Your task to perform on an android device: open app "Truecaller" (install if not already installed) and enter user name: "coauthor@gmail.com" and password: "quadrangle" Image 0: 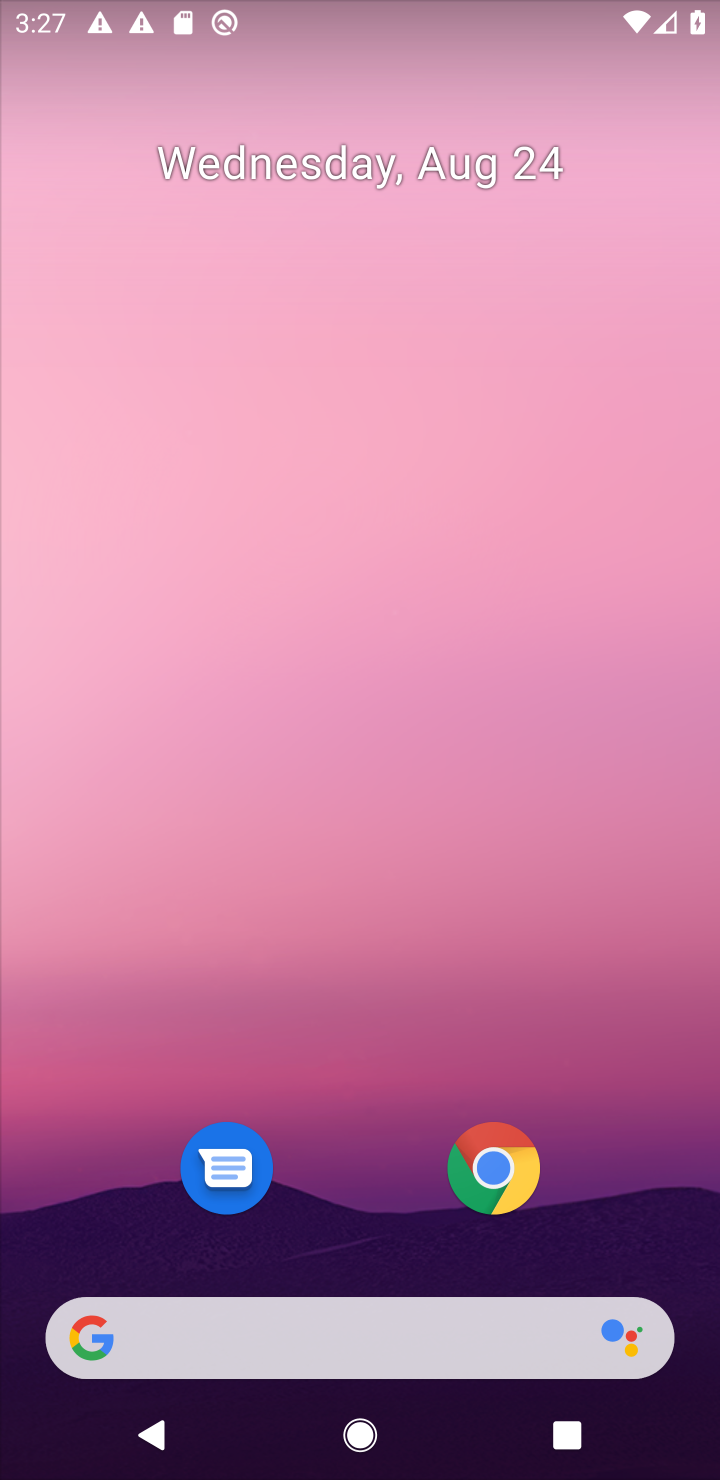
Step 0: drag from (676, 1197) to (565, 159)
Your task to perform on an android device: open app "Truecaller" (install if not already installed) and enter user name: "coauthor@gmail.com" and password: "quadrangle" Image 1: 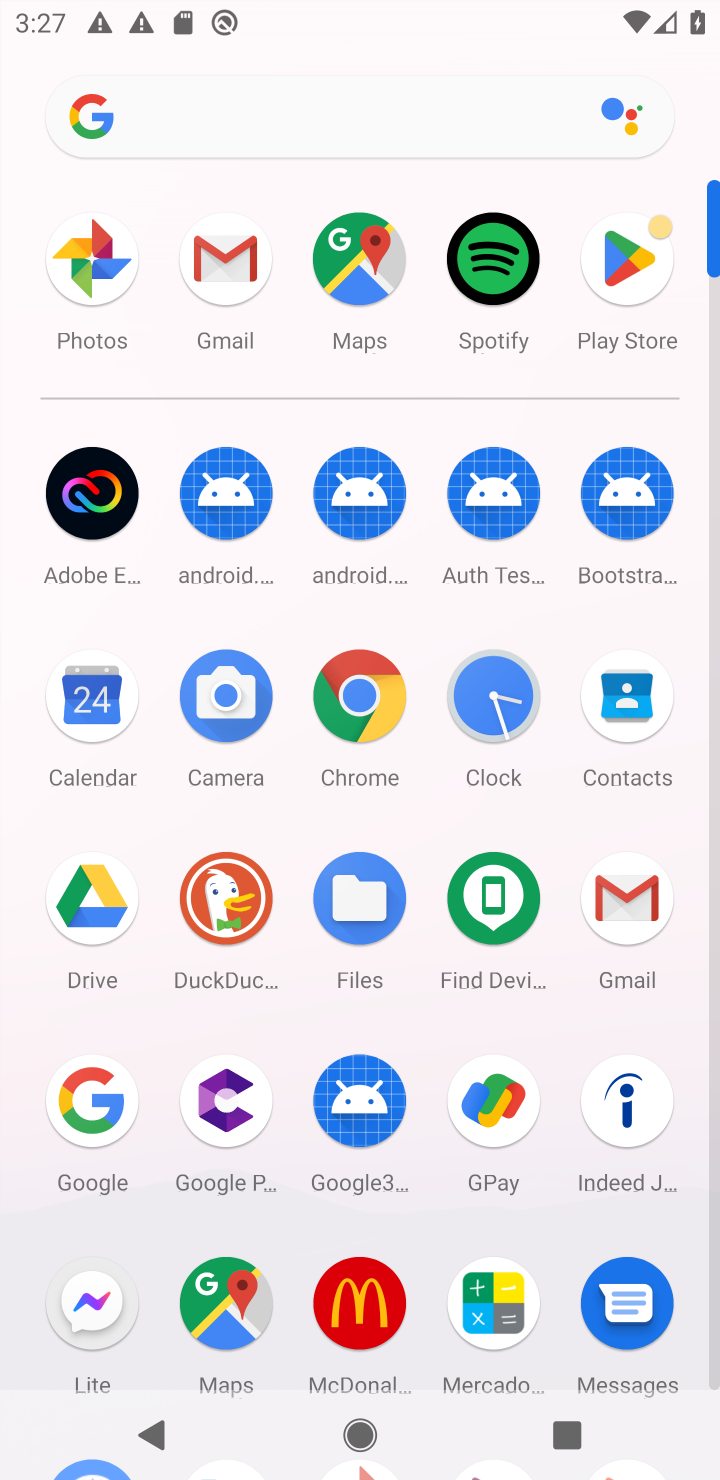
Step 1: click (718, 1337)
Your task to perform on an android device: open app "Truecaller" (install if not already installed) and enter user name: "coauthor@gmail.com" and password: "quadrangle" Image 2: 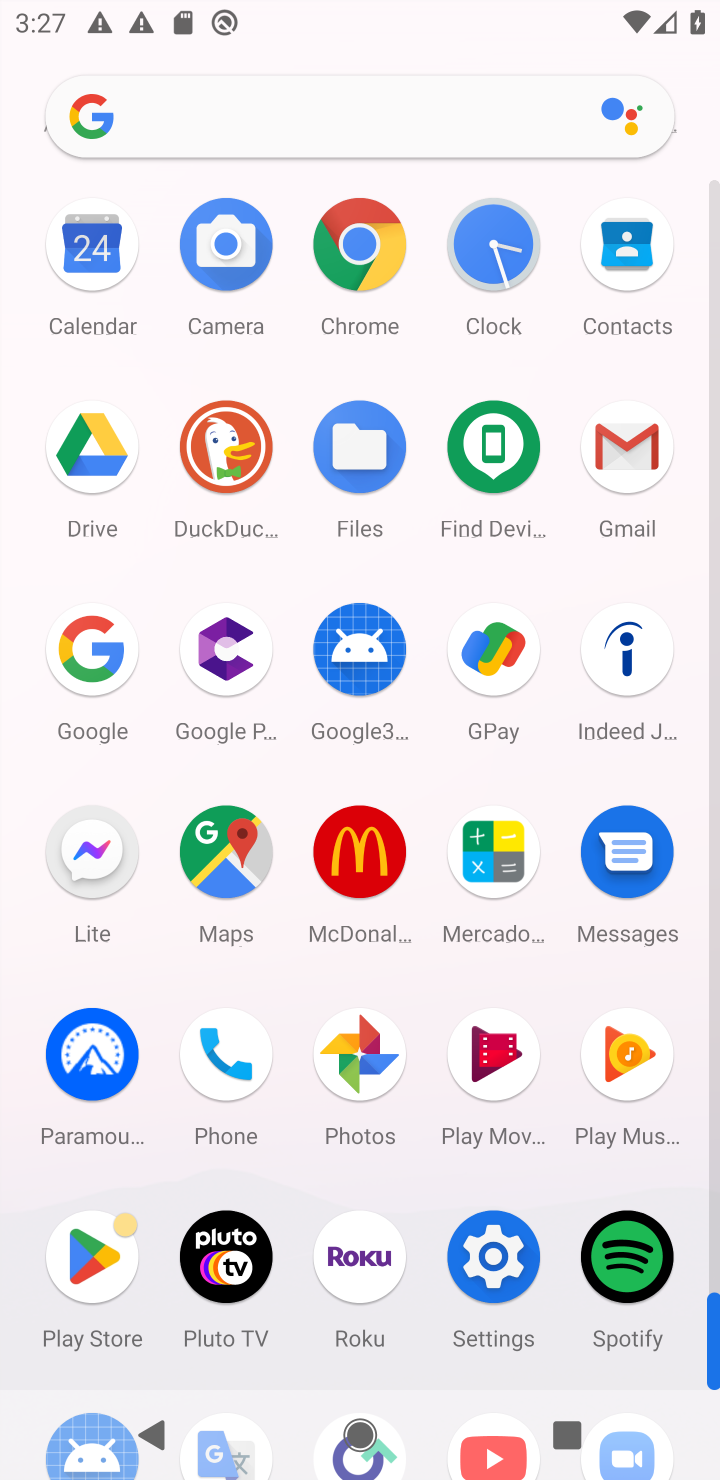
Step 2: click (98, 1255)
Your task to perform on an android device: open app "Truecaller" (install if not already installed) and enter user name: "coauthor@gmail.com" and password: "quadrangle" Image 3: 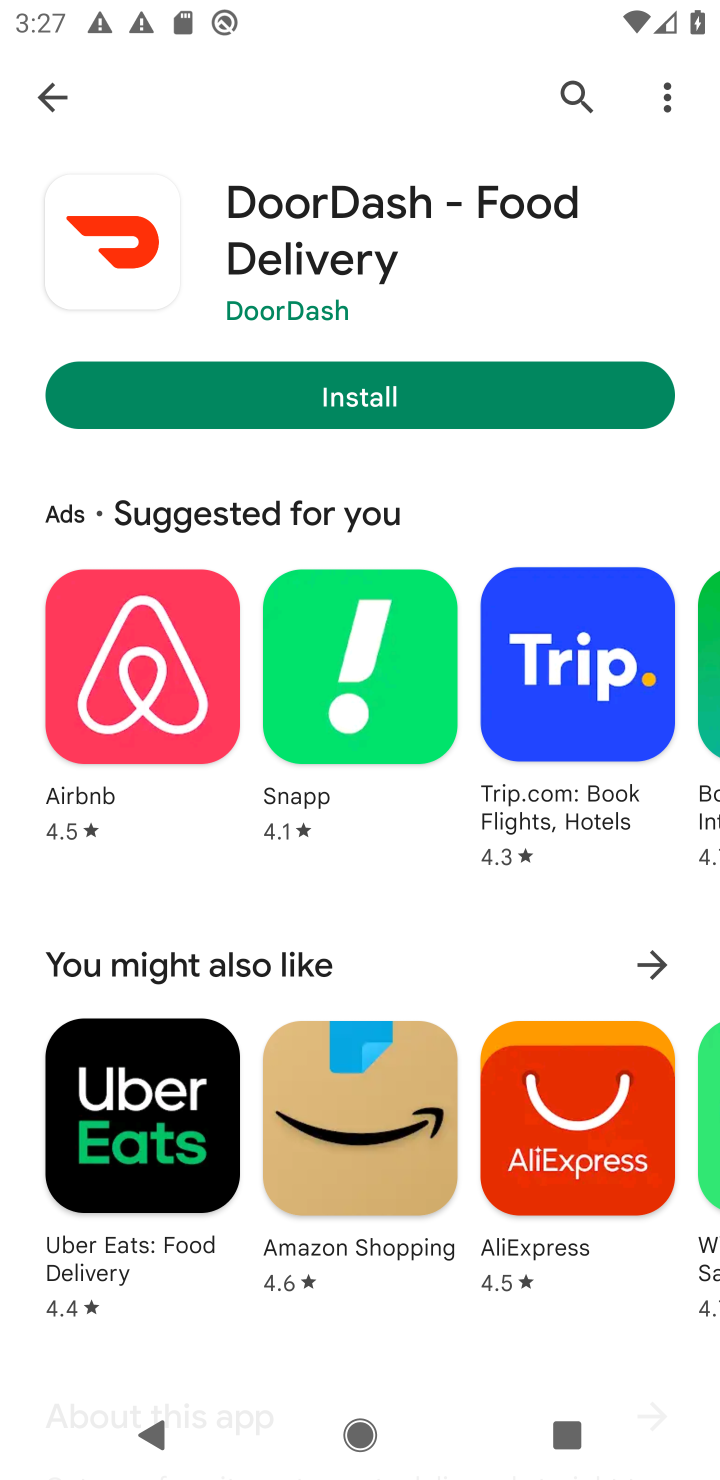
Step 3: click (569, 83)
Your task to perform on an android device: open app "Truecaller" (install if not already installed) and enter user name: "coauthor@gmail.com" and password: "quadrangle" Image 4: 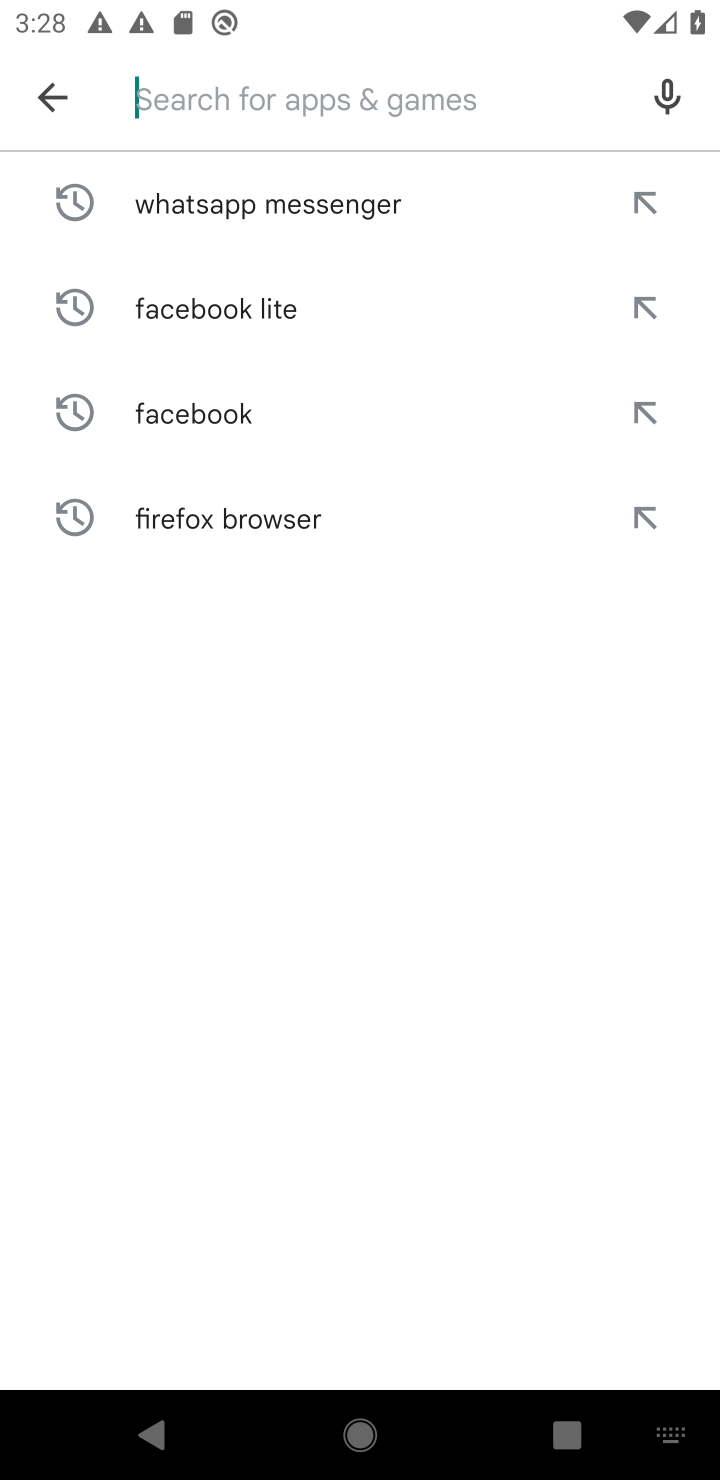
Step 4: type "Truecalle"
Your task to perform on an android device: open app "Truecaller" (install if not already installed) and enter user name: "coauthor@gmail.com" and password: "quadrangle" Image 5: 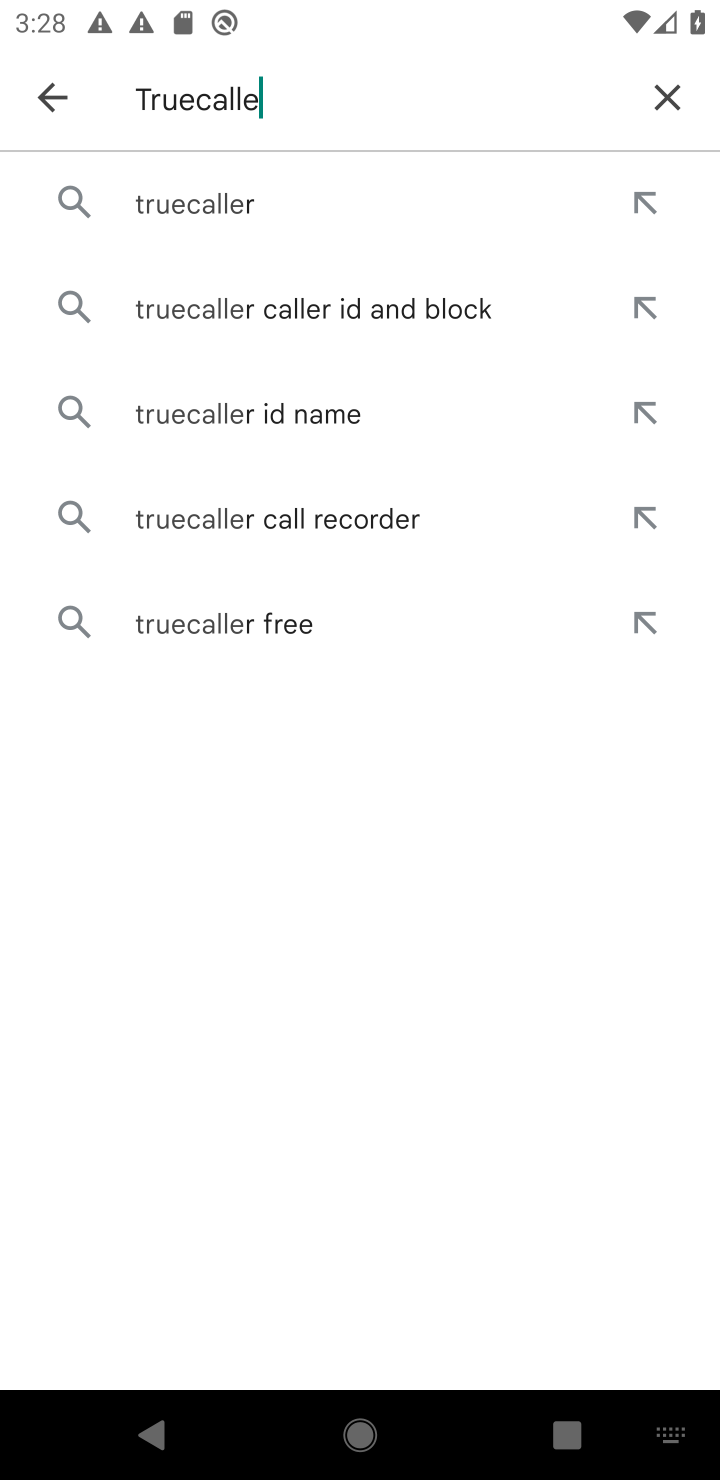
Step 5: click (217, 192)
Your task to perform on an android device: open app "Truecaller" (install if not already installed) and enter user name: "coauthor@gmail.com" and password: "quadrangle" Image 6: 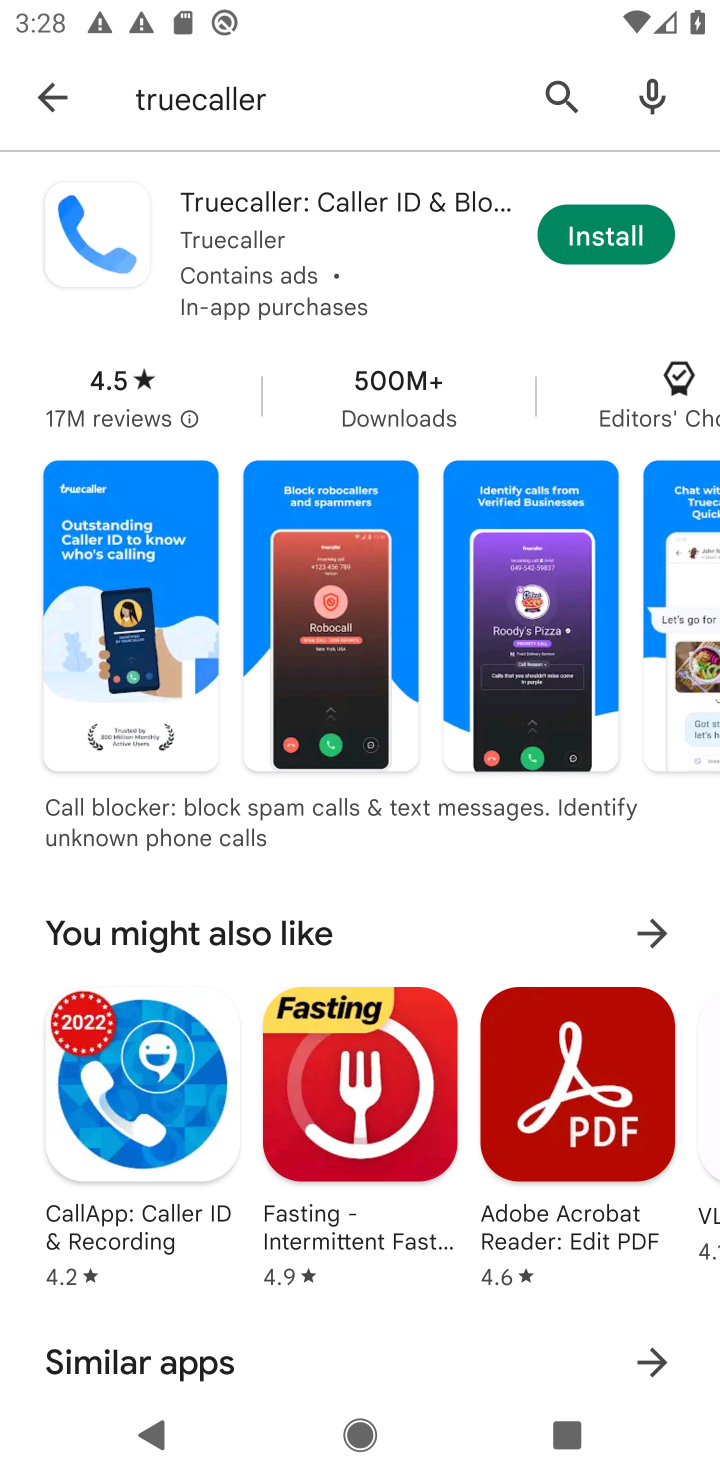
Step 6: click (244, 202)
Your task to perform on an android device: open app "Truecaller" (install if not already installed) and enter user name: "coauthor@gmail.com" and password: "quadrangle" Image 7: 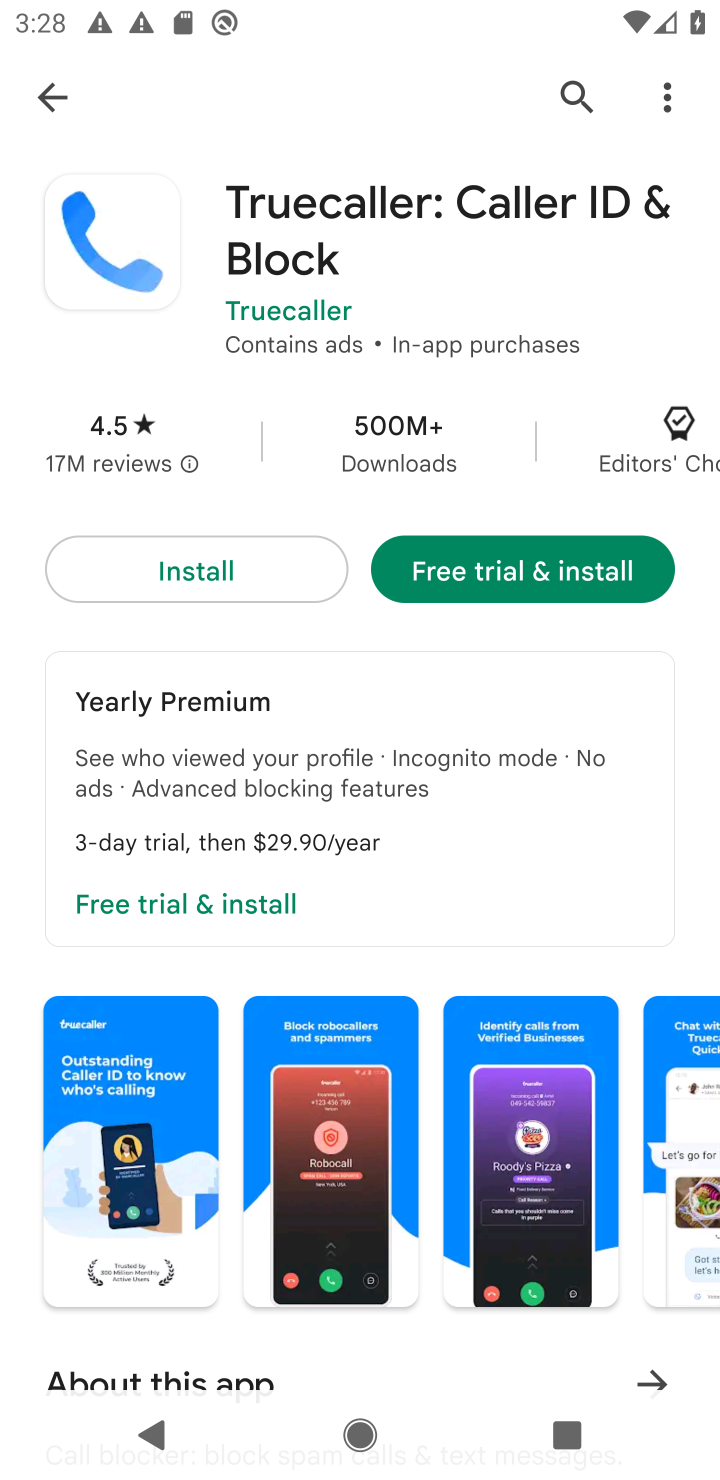
Step 7: click (195, 566)
Your task to perform on an android device: open app "Truecaller" (install if not already installed) and enter user name: "coauthor@gmail.com" and password: "quadrangle" Image 8: 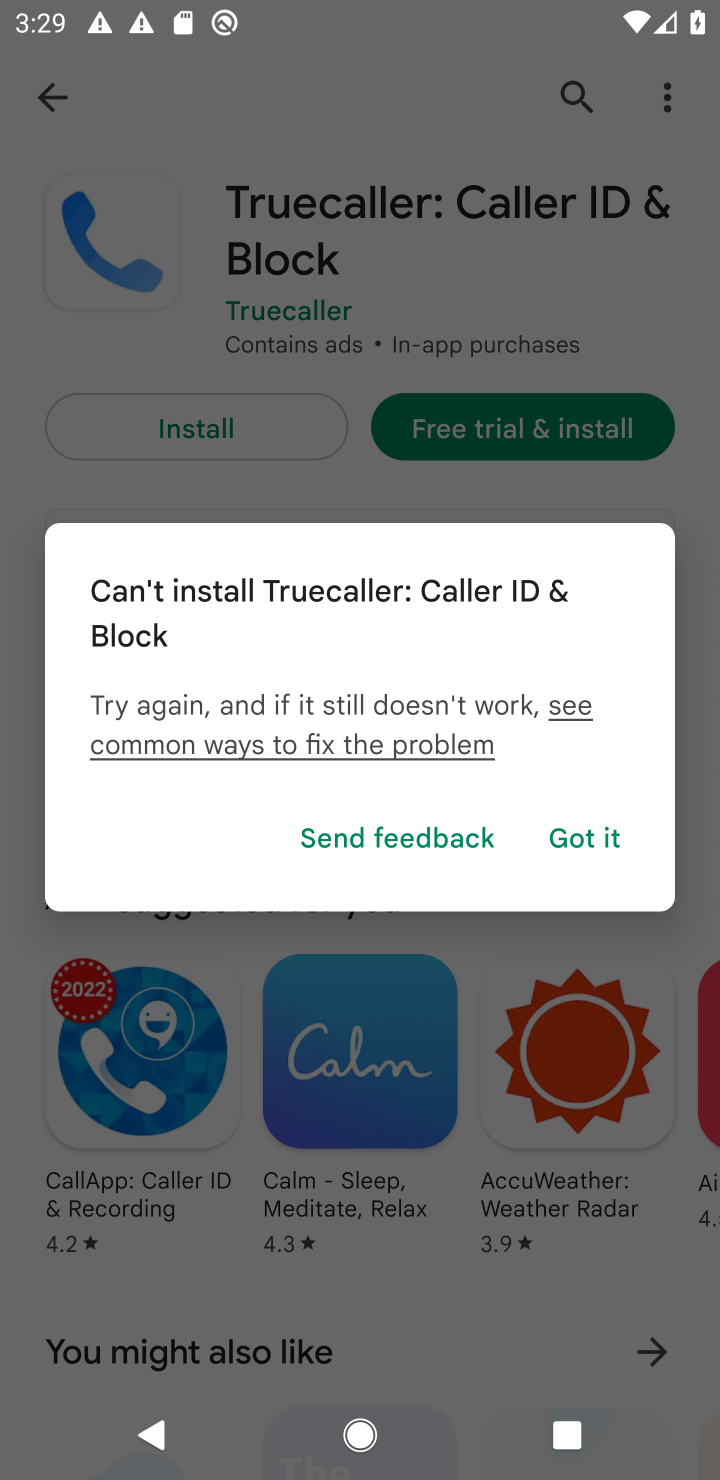
Step 8: click (577, 839)
Your task to perform on an android device: open app "Truecaller" (install if not already installed) and enter user name: "coauthor@gmail.com" and password: "quadrangle" Image 9: 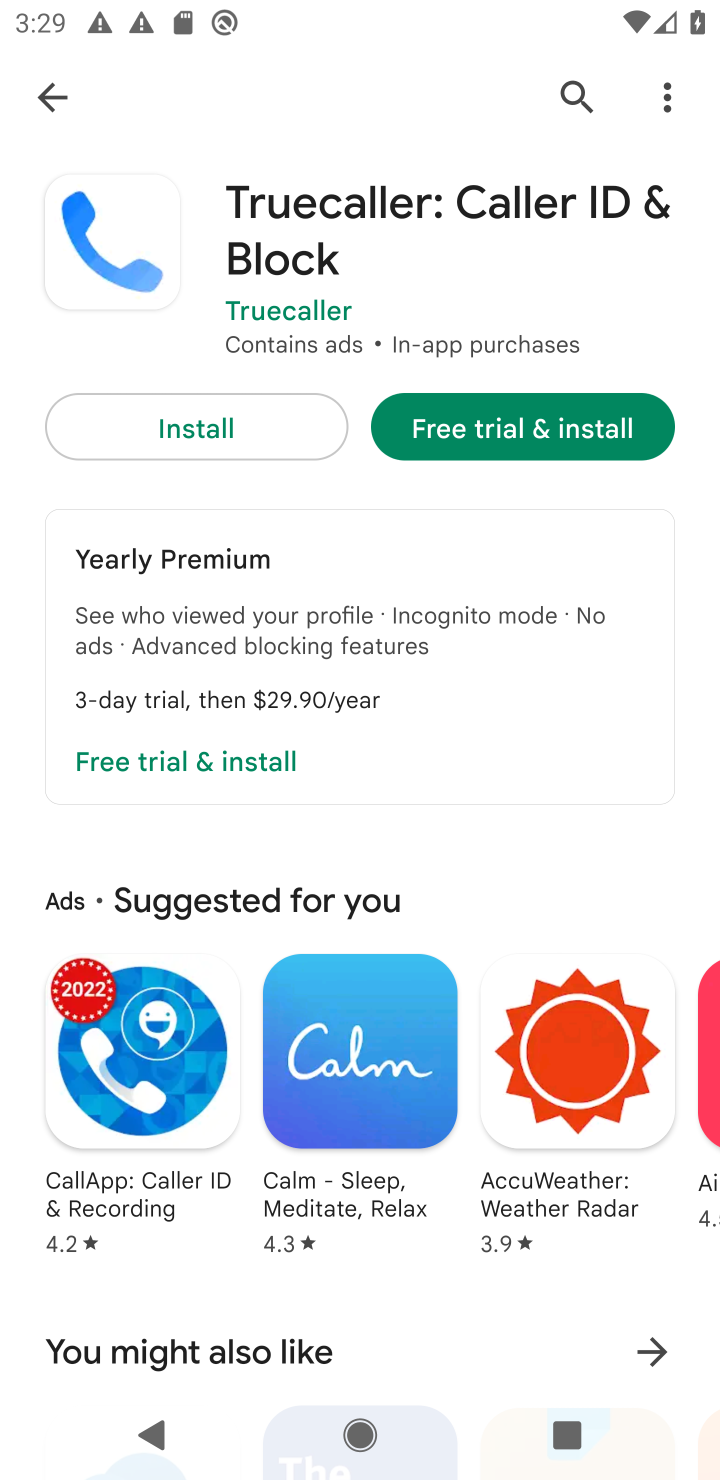
Step 9: click (183, 412)
Your task to perform on an android device: open app "Truecaller" (install if not already installed) and enter user name: "coauthor@gmail.com" and password: "quadrangle" Image 10: 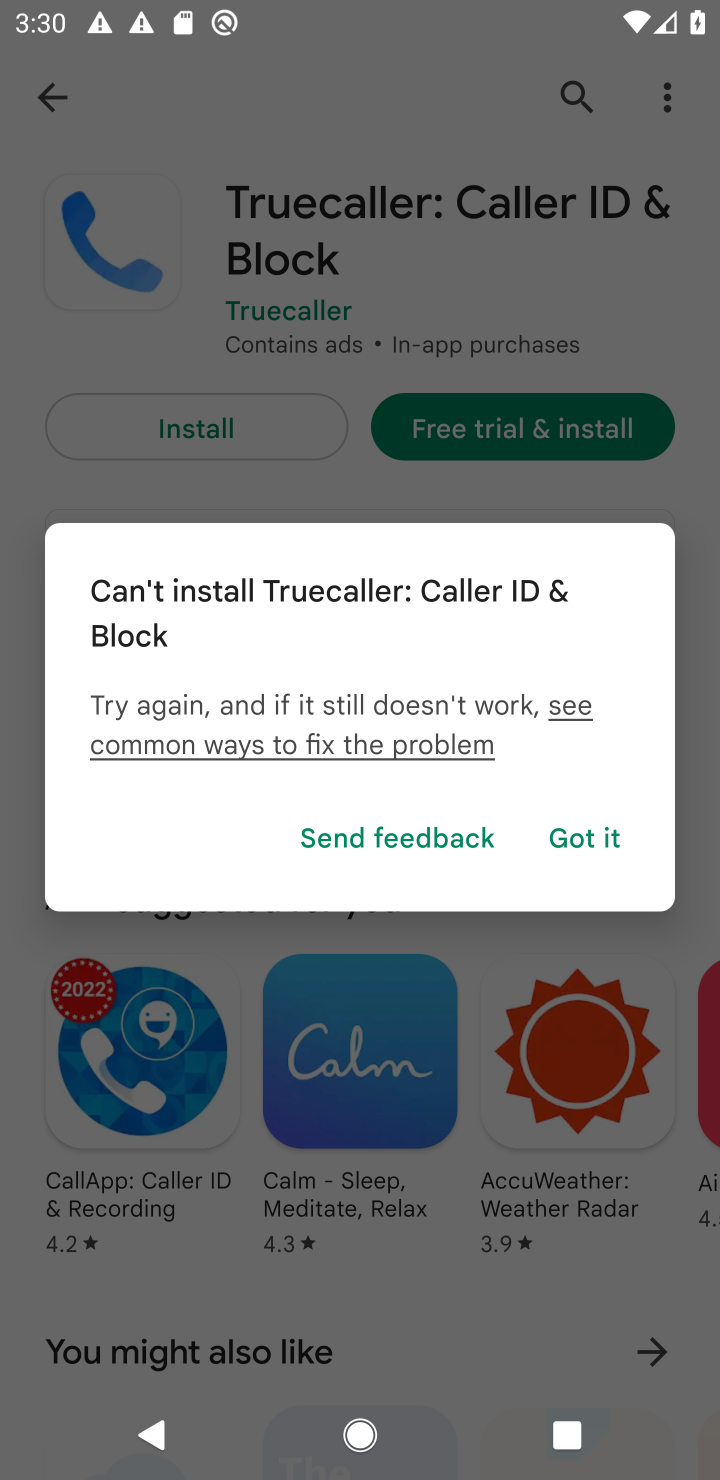
Step 10: click (564, 834)
Your task to perform on an android device: open app "Truecaller" (install if not already installed) and enter user name: "coauthor@gmail.com" and password: "quadrangle" Image 11: 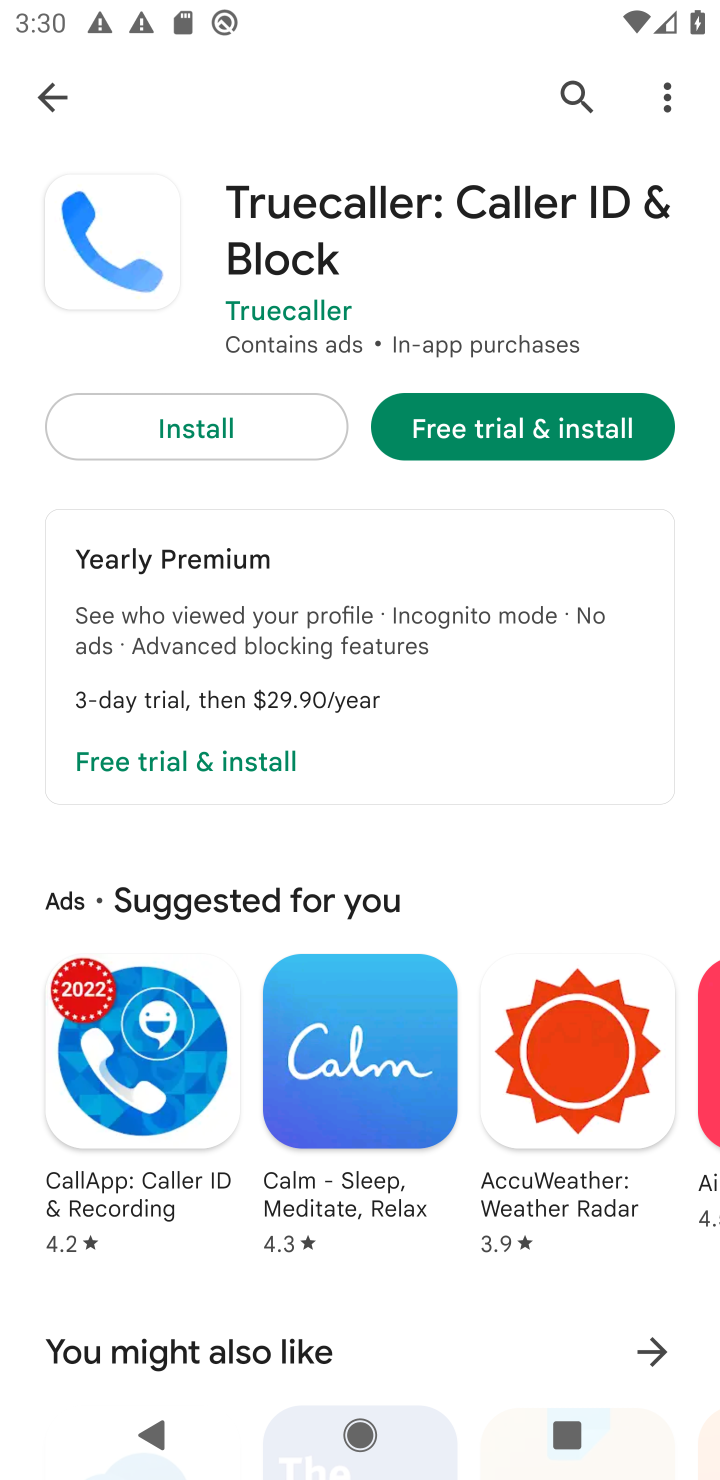
Step 11: task complete